Your task to perform on an android device: turn off picture-in-picture Image 0: 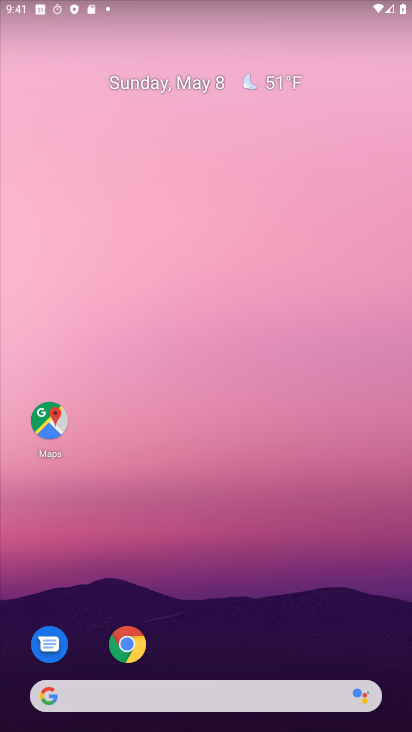
Step 0: drag from (402, 706) to (210, 240)
Your task to perform on an android device: turn off picture-in-picture Image 1: 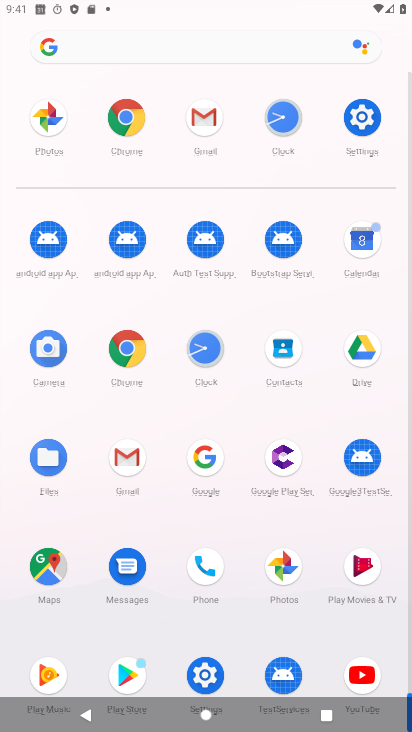
Step 1: click (367, 108)
Your task to perform on an android device: turn off picture-in-picture Image 2: 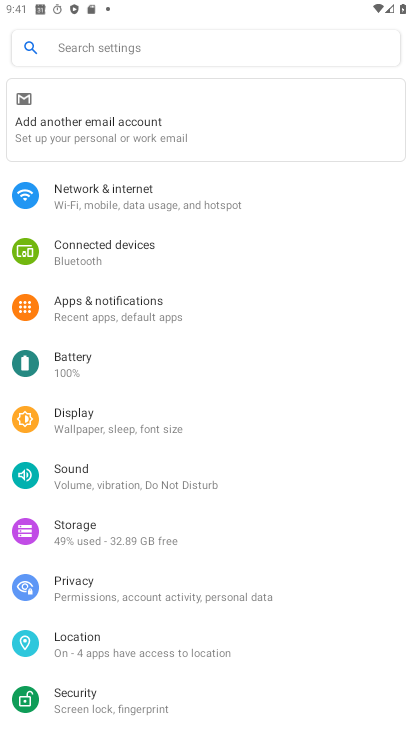
Step 2: drag from (252, 660) to (239, 269)
Your task to perform on an android device: turn off picture-in-picture Image 3: 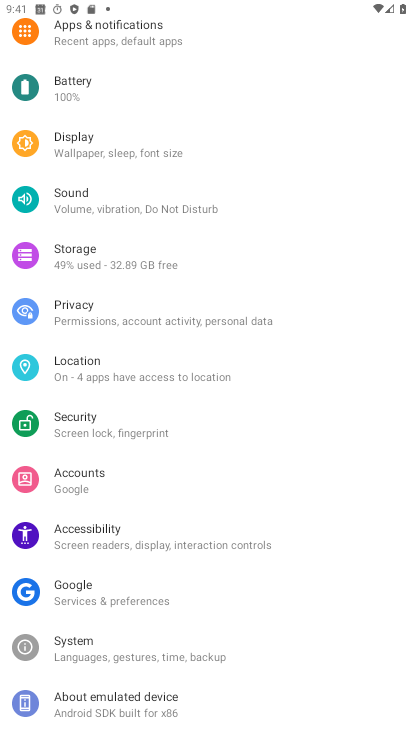
Step 3: drag from (223, 248) to (295, 730)
Your task to perform on an android device: turn off picture-in-picture Image 4: 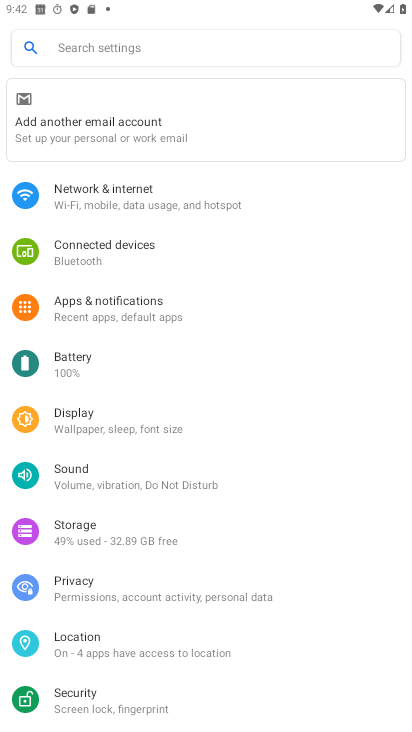
Step 4: click (116, 316)
Your task to perform on an android device: turn off picture-in-picture Image 5: 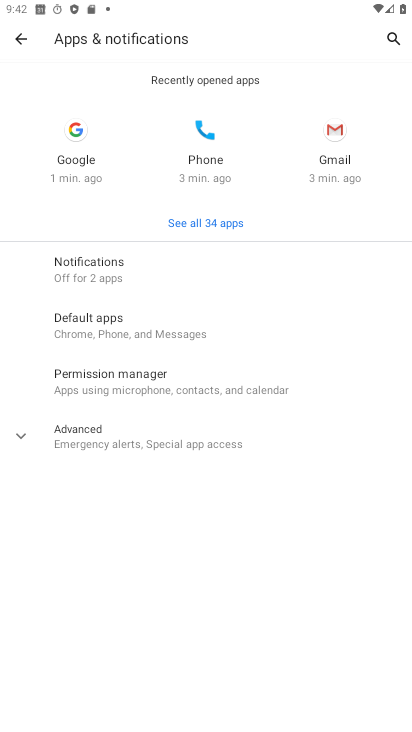
Step 5: click (113, 428)
Your task to perform on an android device: turn off picture-in-picture Image 6: 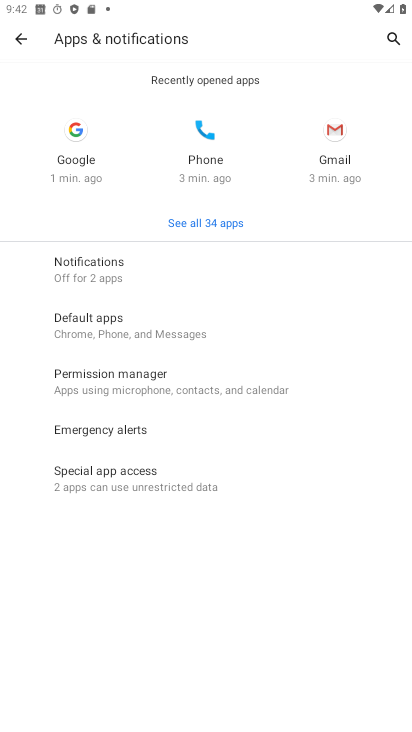
Step 6: click (140, 476)
Your task to perform on an android device: turn off picture-in-picture Image 7: 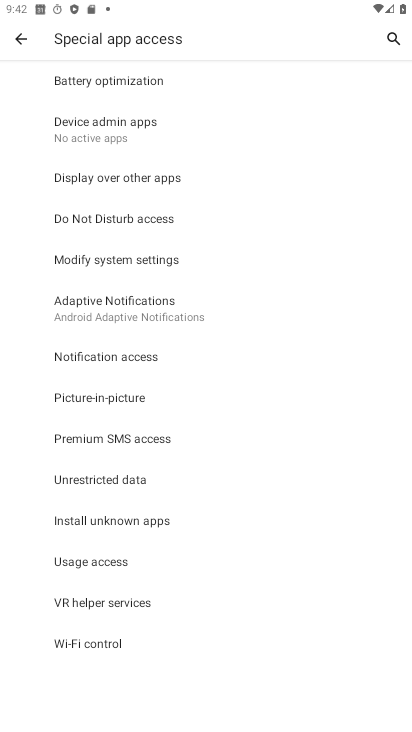
Step 7: click (111, 403)
Your task to perform on an android device: turn off picture-in-picture Image 8: 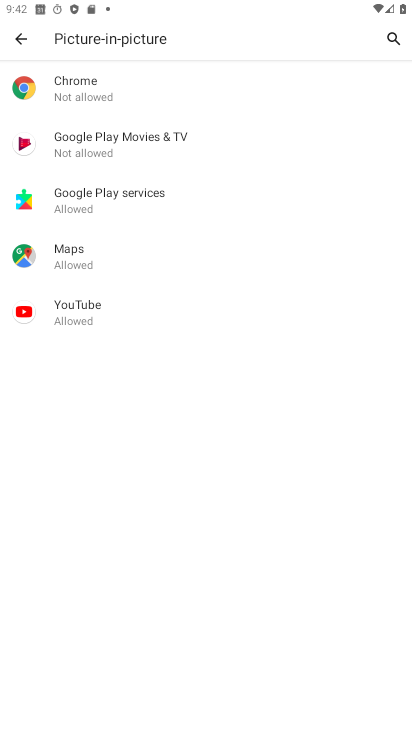
Step 8: click (101, 204)
Your task to perform on an android device: turn off picture-in-picture Image 9: 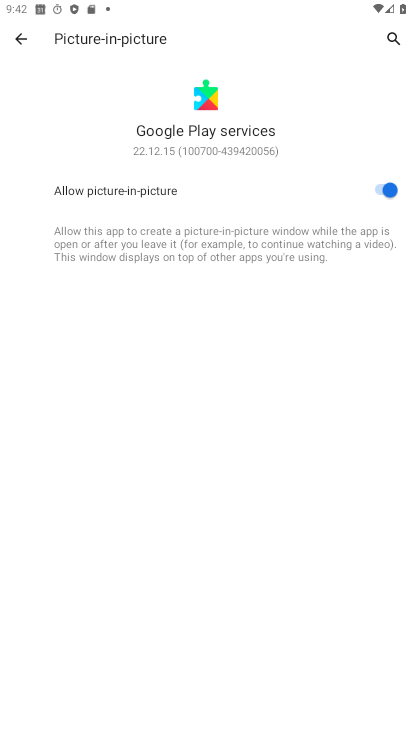
Step 9: click (374, 181)
Your task to perform on an android device: turn off picture-in-picture Image 10: 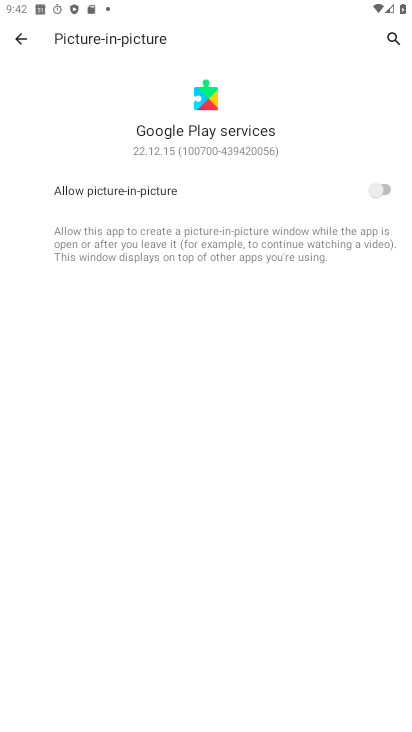
Step 10: task complete